Your task to perform on an android device: turn off notifications settings in the gmail app Image 0: 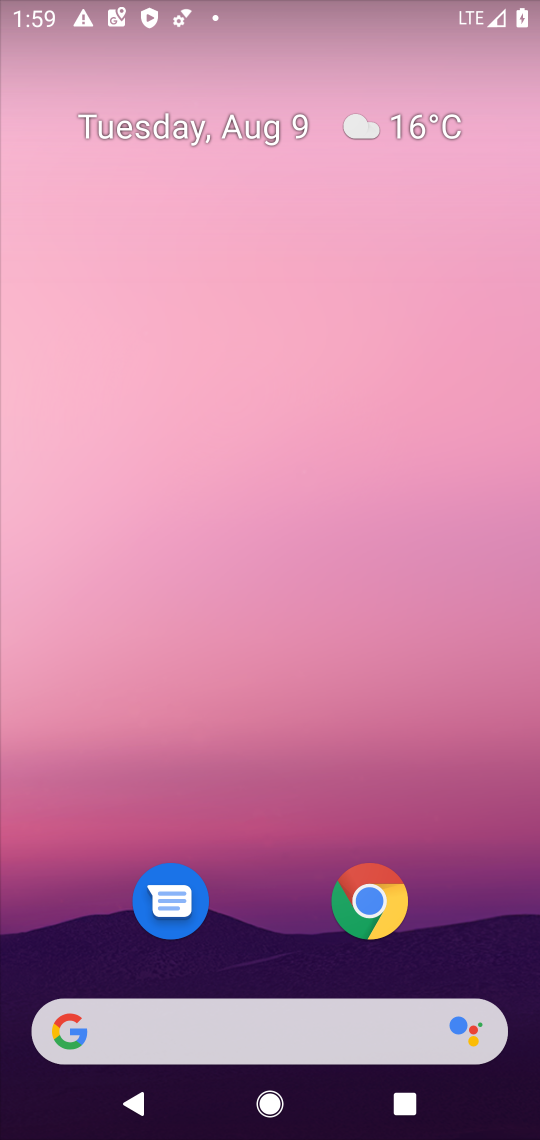
Step 0: drag from (492, 950) to (447, 144)
Your task to perform on an android device: turn off notifications settings in the gmail app Image 1: 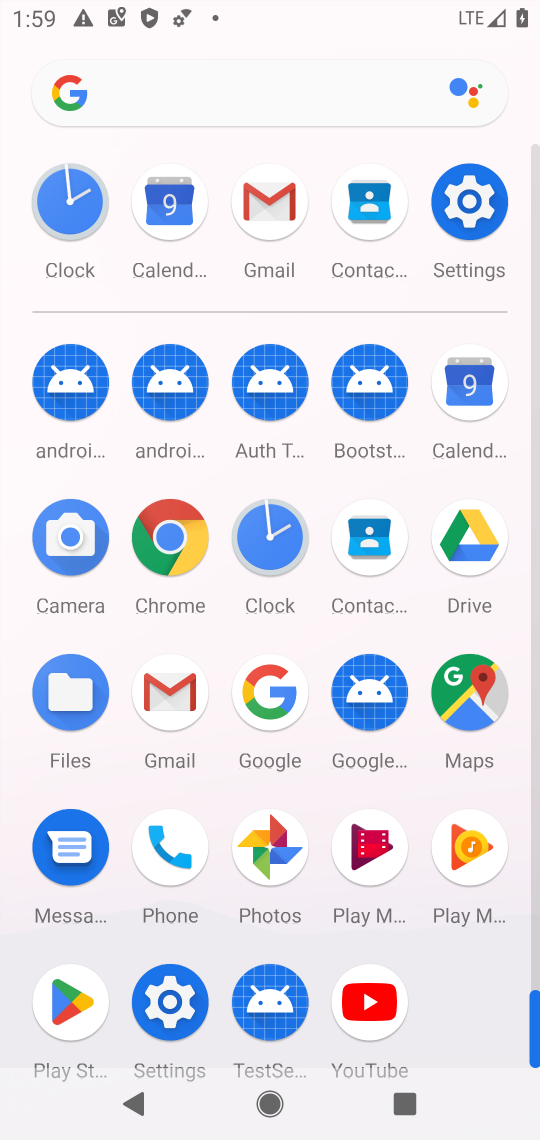
Step 1: click (165, 694)
Your task to perform on an android device: turn off notifications settings in the gmail app Image 2: 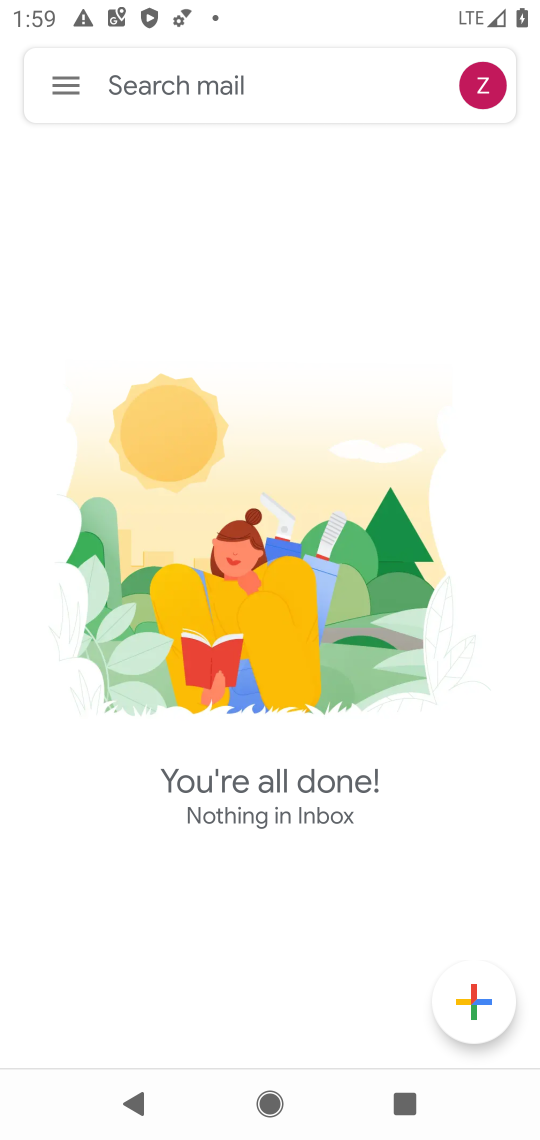
Step 2: click (58, 90)
Your task to perform on an android device: turn off notifications settings in the gmail app Image 3: 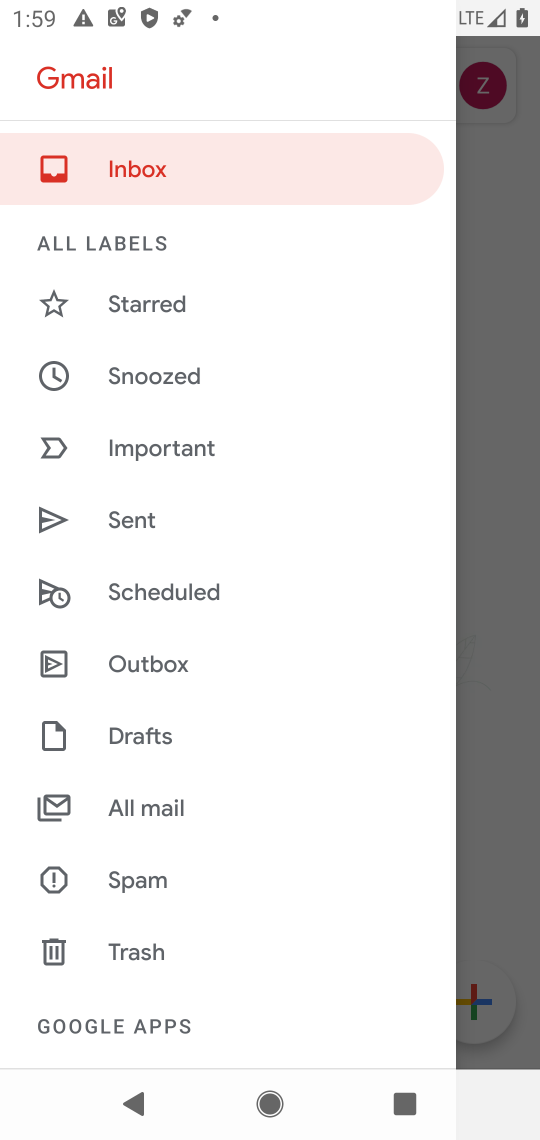
Step 3: drag from (271, 1000) to (275, 422)
Your task to perform on an android device: turn off notifications settings in the gmail app Image 4: 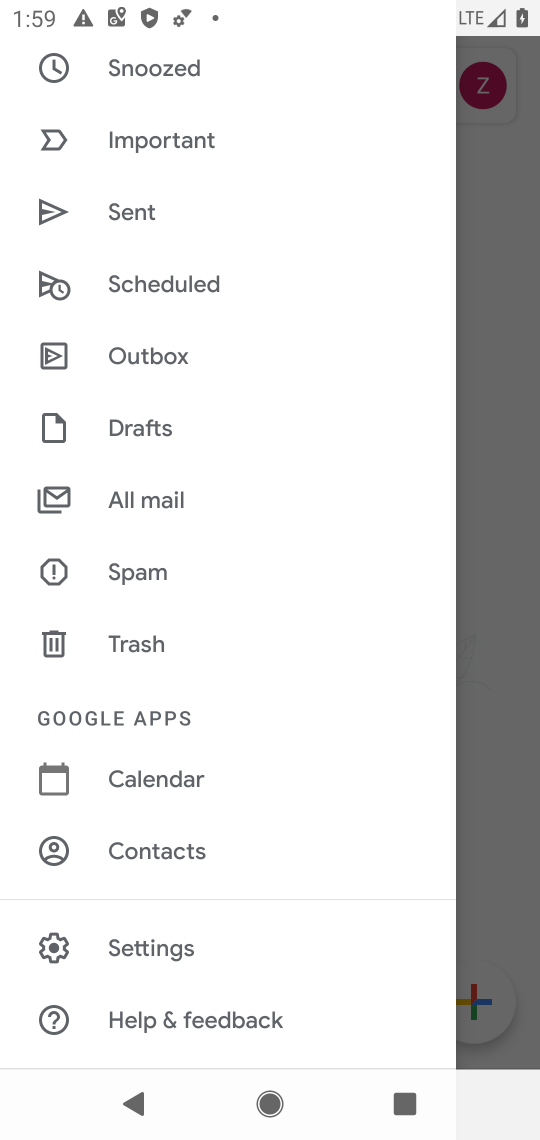
Step 4: click (154, 954)
Your task to perform on an android device: turn off notifications settings in the gmail app Image 5: 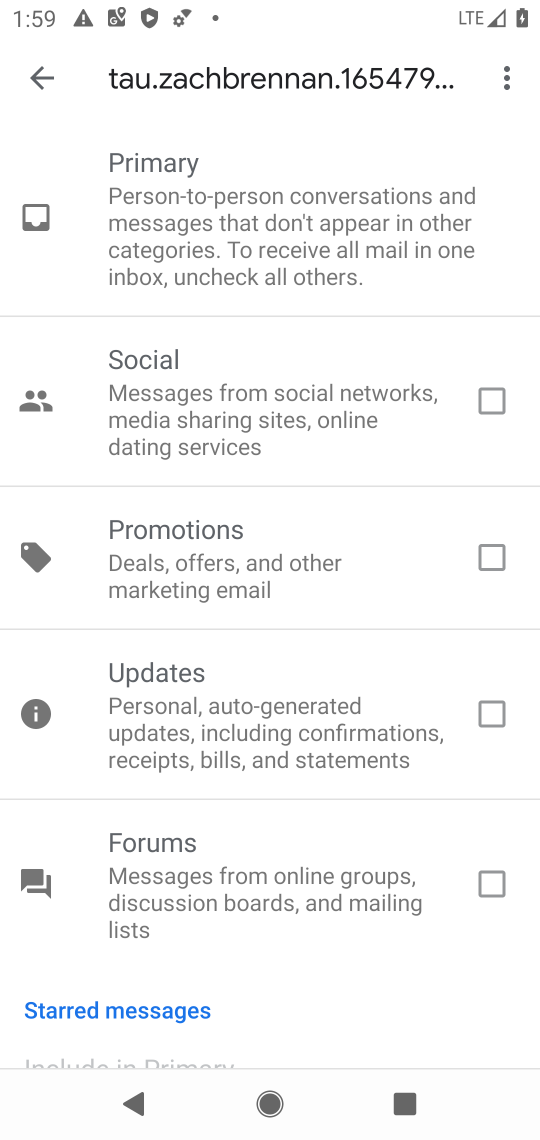
Step 5: press back button
Your task to perform on an android device: turn off notifications settings in the gmail app Image 6: 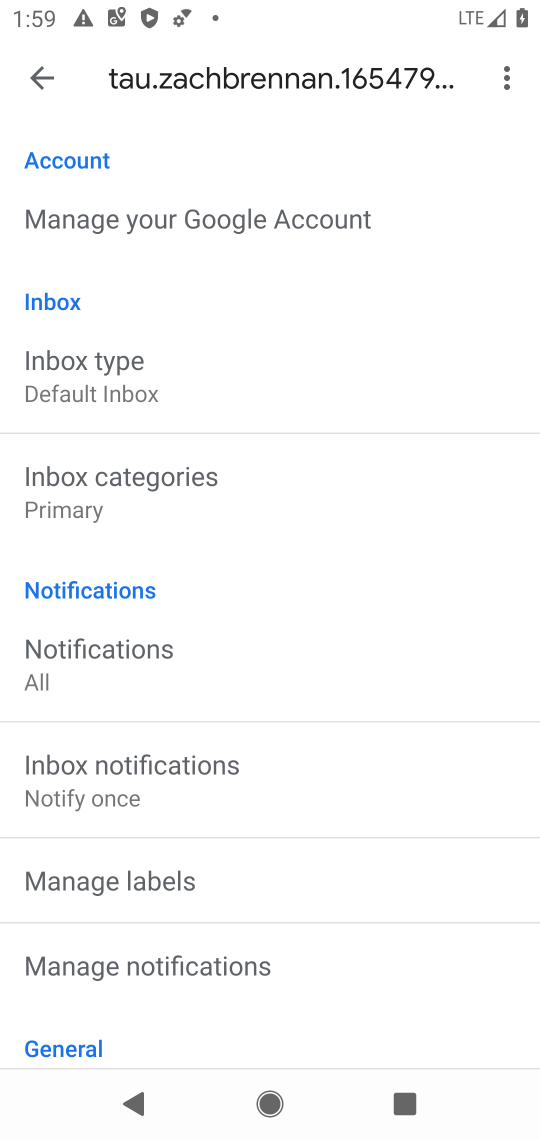
Step 6: drag from (387, 930) to (355, 515)
Your task to perform on an android device: turn off notifications settings in the gmail app Image 7: 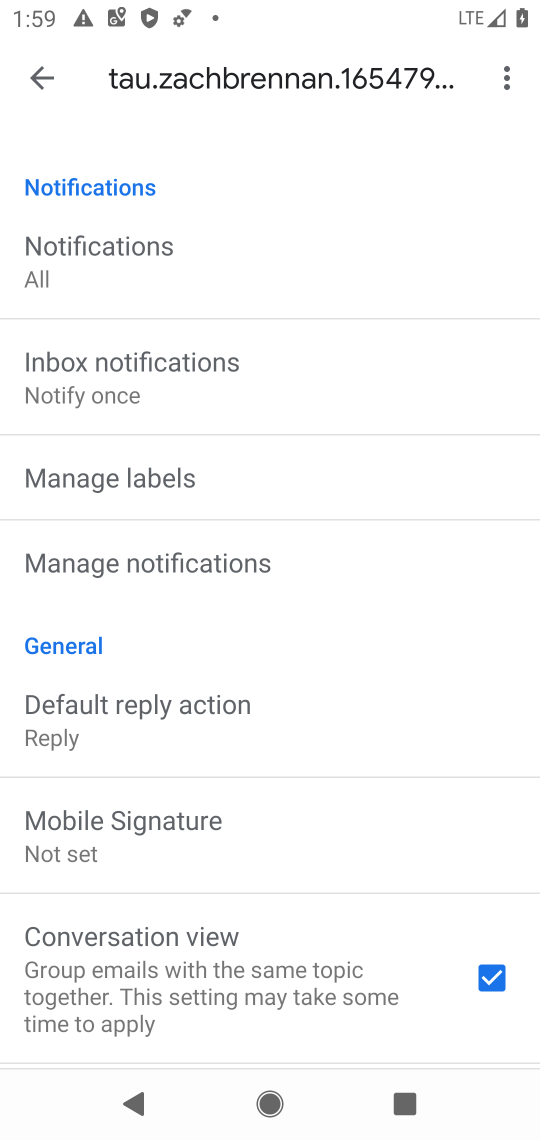
Step 7: click (154, 563)
Your task to perform on an android device: turn off notifications settings in the gmail app Image 8: 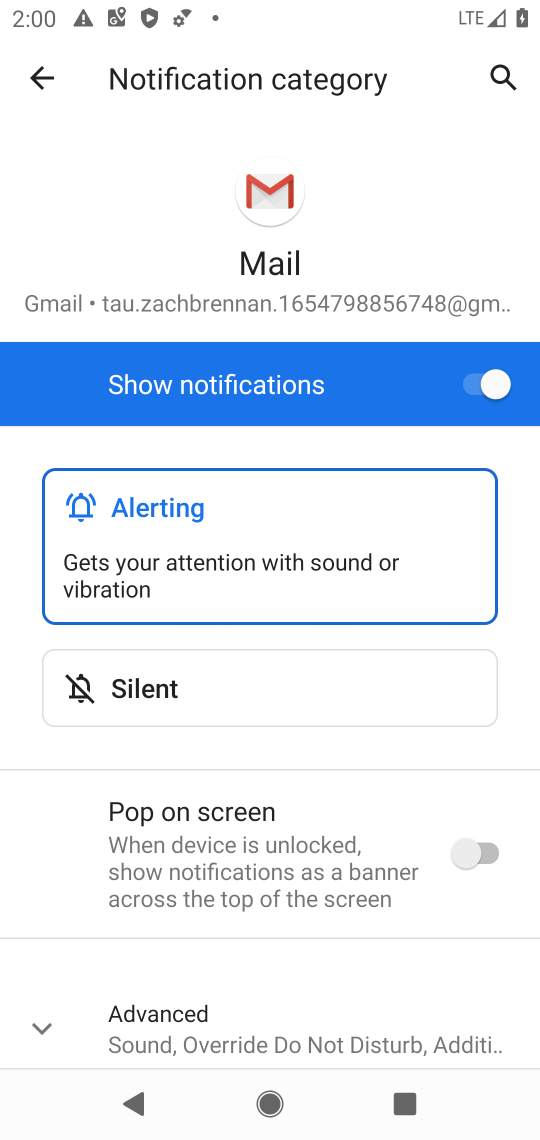
Step 8: click (471, 382)
Your task to perform on an android device: turn off notifications settings in the gmail app Image 9: 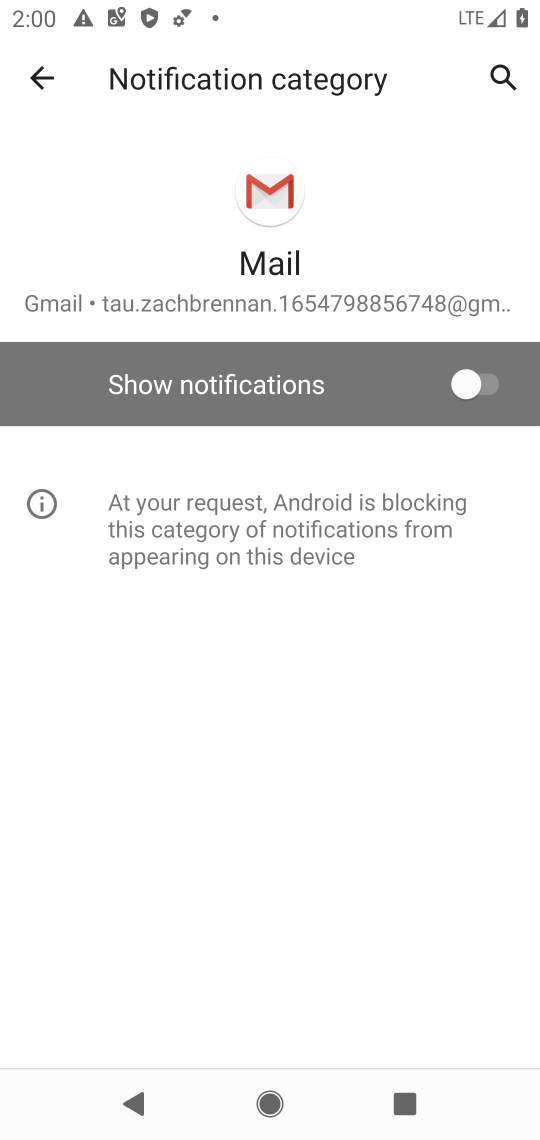
Step 9: task complete